Your task to perform on an android device: Search for pizza restaurants on Maps Image 0: 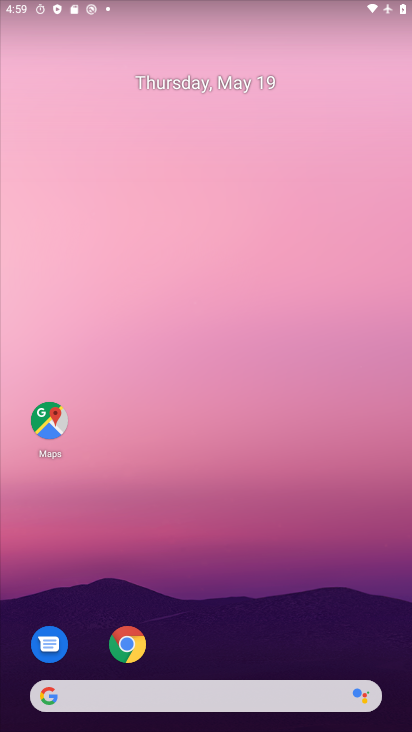
Step 0: click (56, 425)
Your task to perform on an android device: Search for pizza restaurants on Maps Image 1: 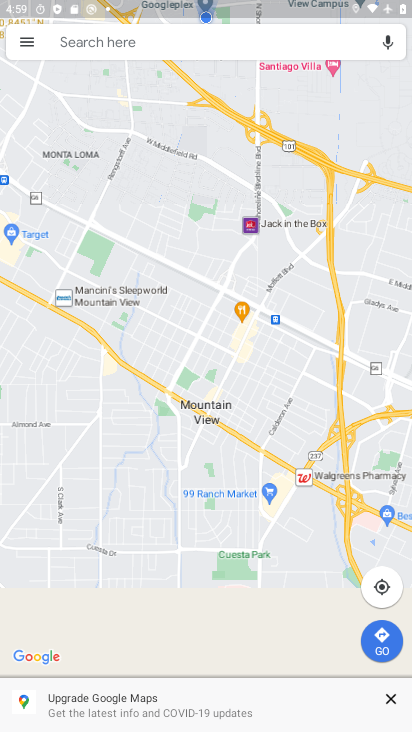
Step 1: click (106, 45)
Your task to perform on an android device: Search for pizza restaurants on Maps Image 2: 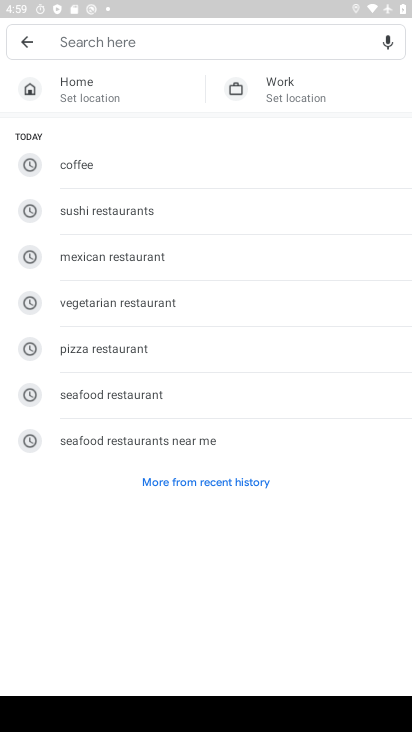
Step 2: click (112, 347)
Your task to perform on an android device: Search for pizza restaurants on Maps Image 3: 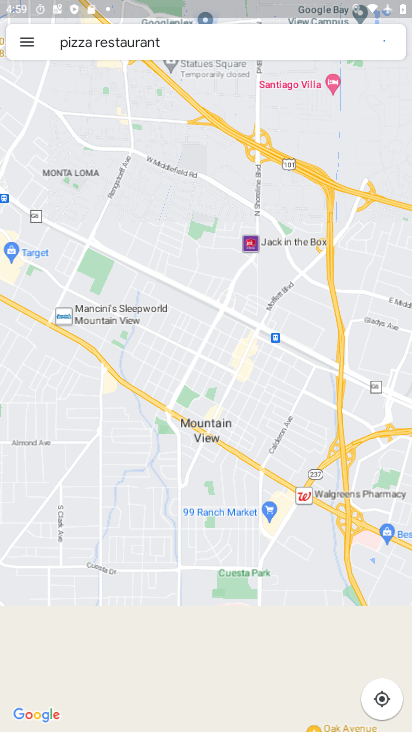
Step 3: task complete